Your task to perform on an android device: empty trash in the gmail app Image 0: 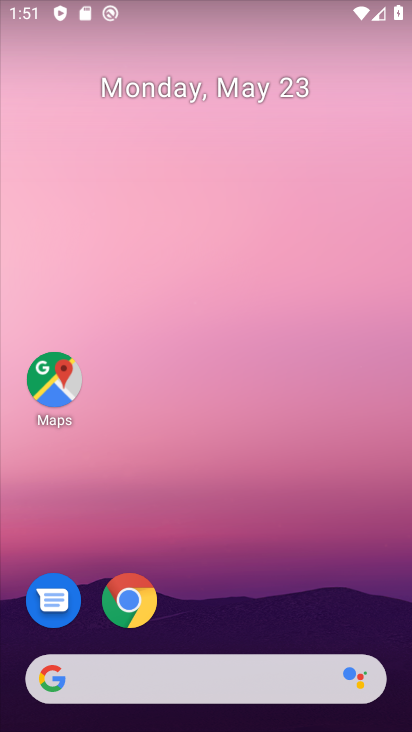
Step 0: drag from (240, 614) to (228, 360)
Your task to perform on an android device: empty trash in the gmail app Image 1: 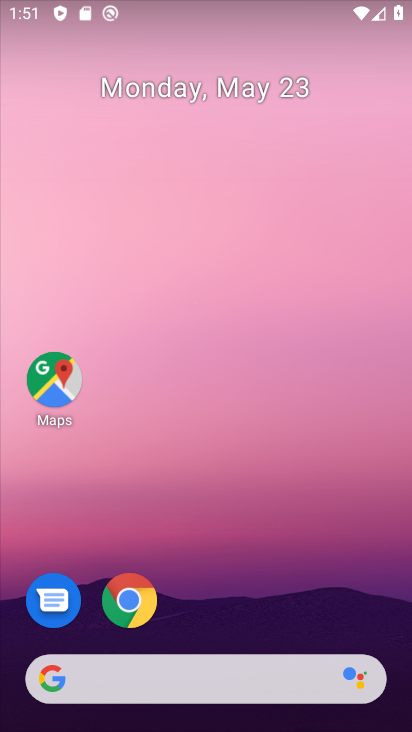
Step 1: drag from (208, 622) to (142, 215)
Your task to perform on an android device: empty trash in the gmail app Image 2: 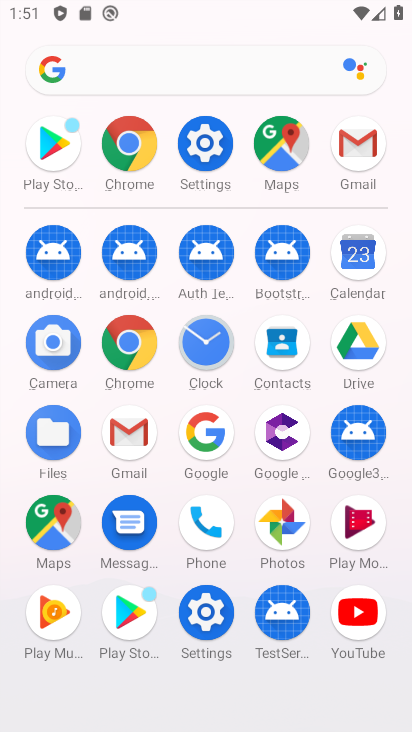
Step 2: click (359, 150)
Your task to perform on an android device: empty trash in the gmail app Image 3: 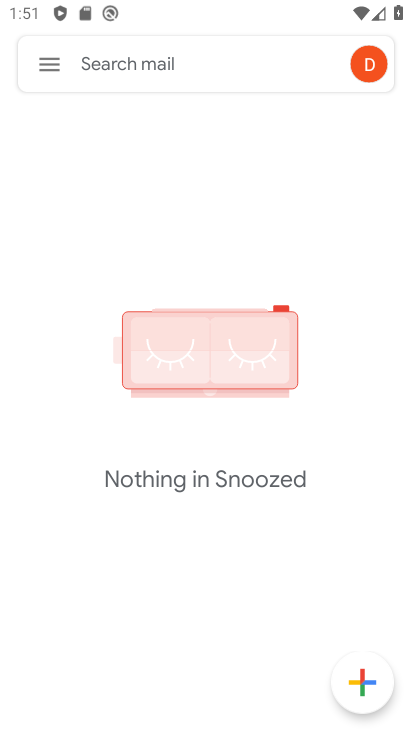
Step 3: click (52, 73)
Your task to perform on an android device: empty trash in the gmail app Image 4: 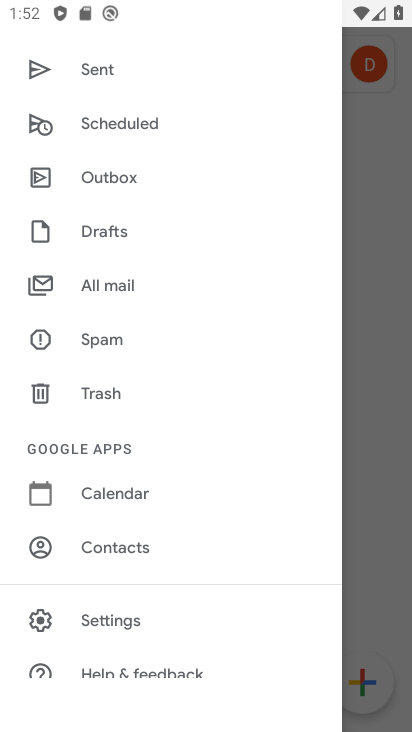
Step 4: click (121, 396)
Your task to perform on an android device: empty trash in the gmail app Image 5: 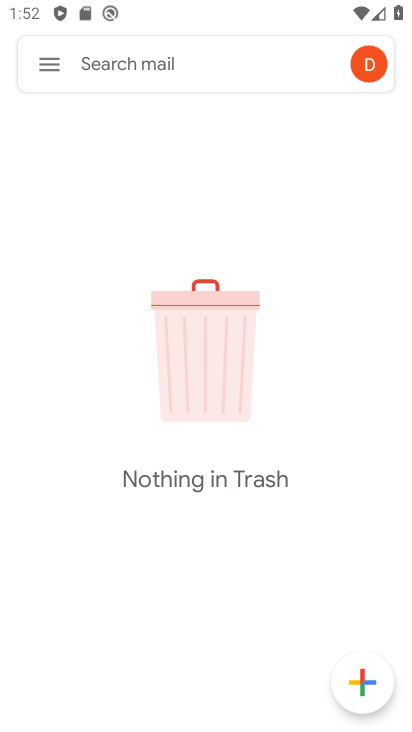
Step 5: task complete